Your task to perform on an android device: What's on the menu at Papa Murphy's? Image 0: 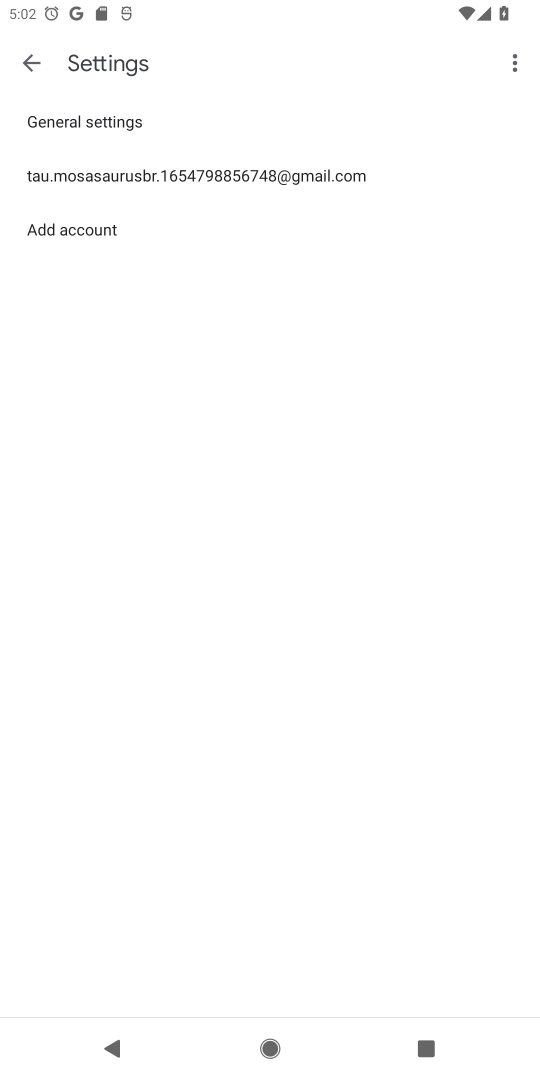
Step 0: press home button
Your task to perform on an android device: What's on the menu at Papa Murphy's? Image 1: 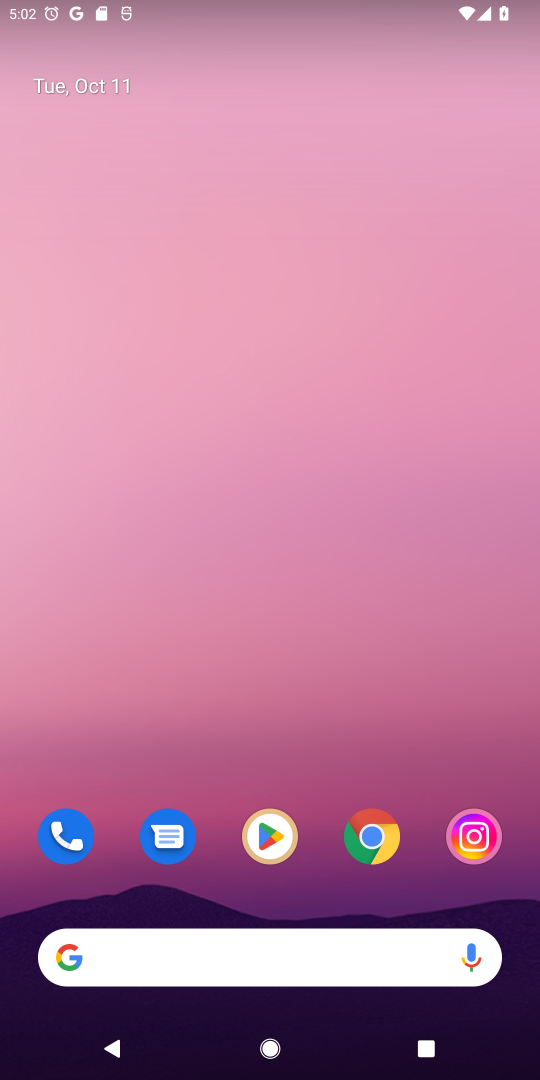
Step 1: click (248, 979)
Your task to perform on an android device: What's on the menu at Papa Murphy's? Image 2: 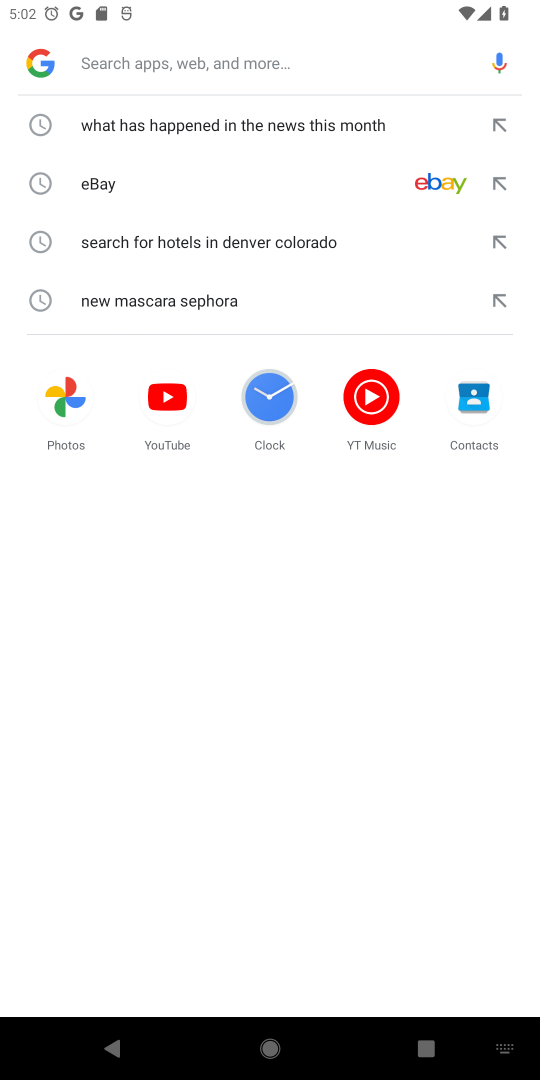
Step 2: type "What's on the menu at Papa Murphy's?"
Your task to perform on an android device: What's on the menu at Papa Murphy's? Image 3: 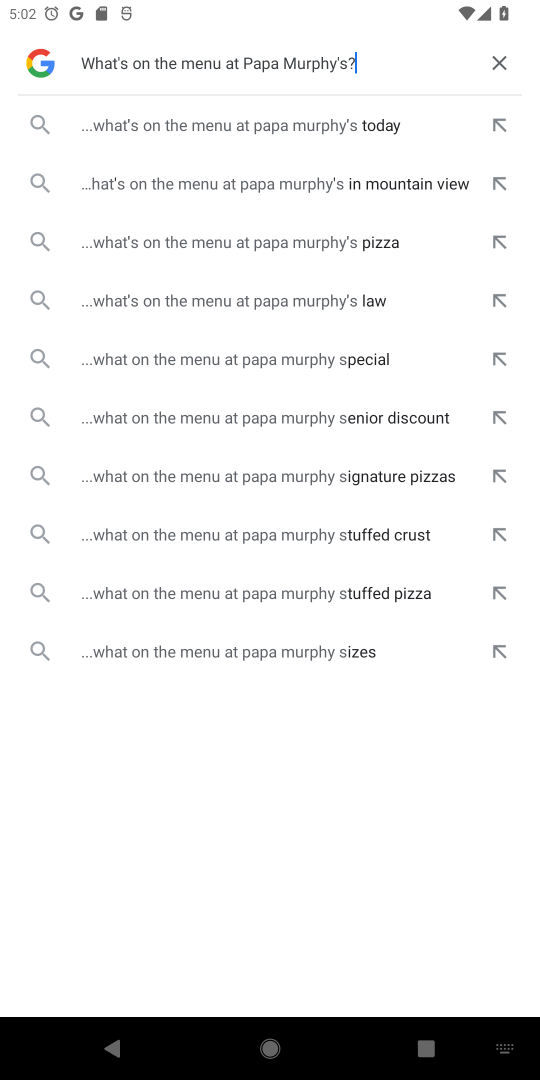
Step 3: click (307, 95)
Your task to perform on an android device: What's on the menu at Papa Murphy's? Image 4: 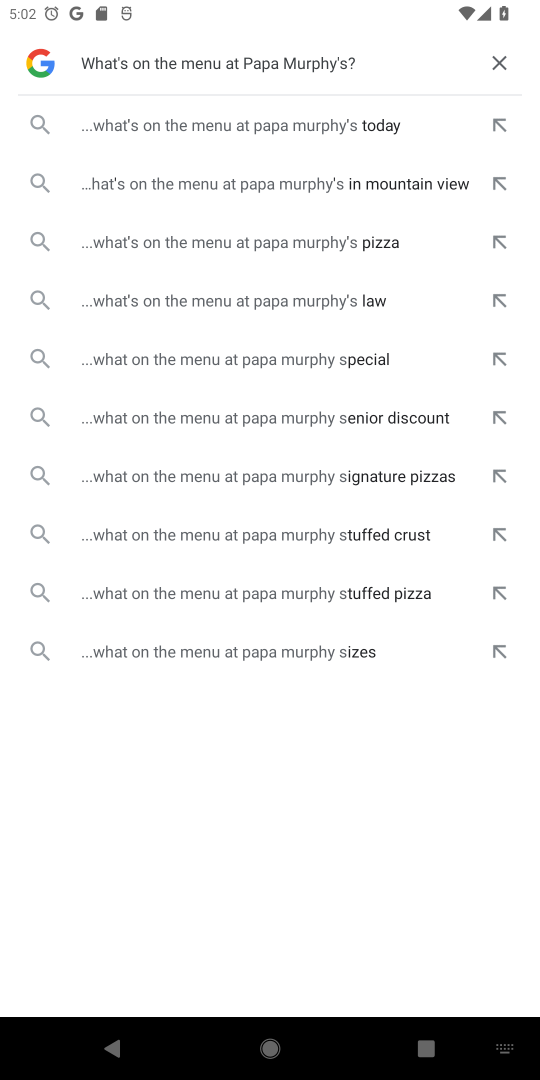
Step 4: click (337, 147)
Your task to perform on an android device: What's on the menu at Papa Murphy's? Image 5: 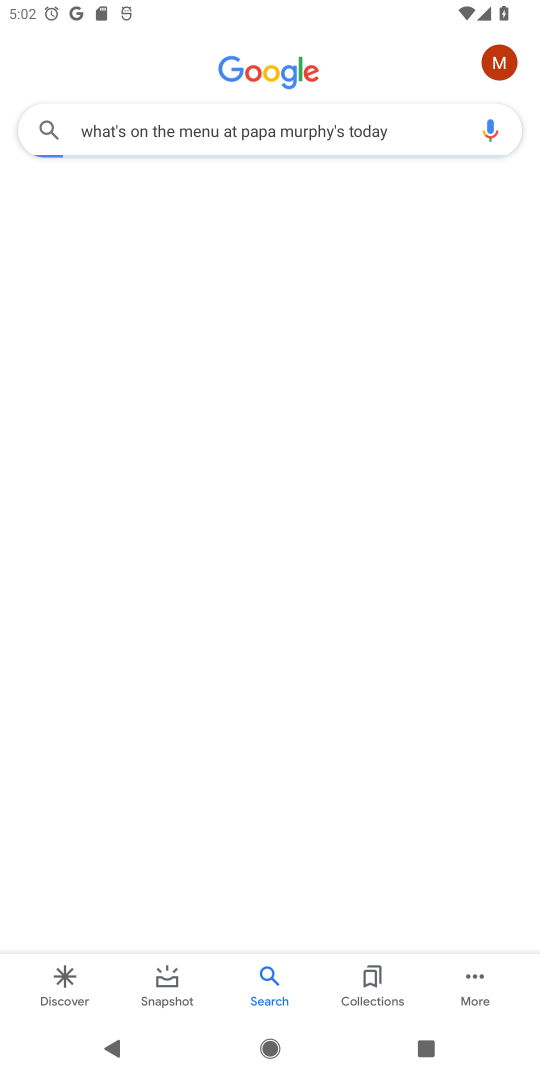
Step 5: task complete